Your task to perform on an android device: Turn on the flashlight Image 0: 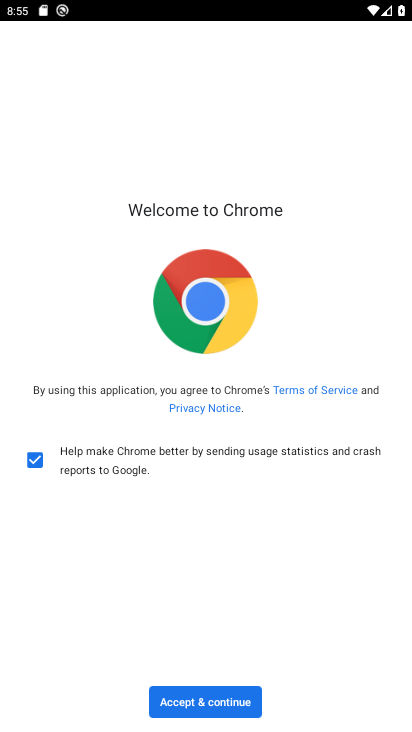
Step 0: press home button
Your task to perform on an android device: Turn on the flashlight Image 1: 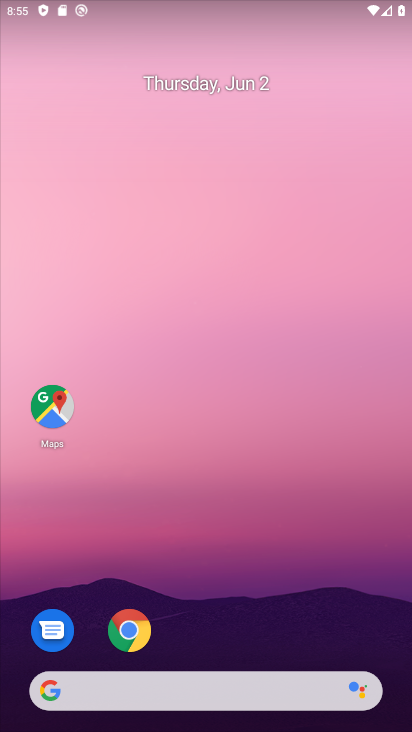
Step 1: task complete